Your task to perform on an android device: What is the news today? Image 0: 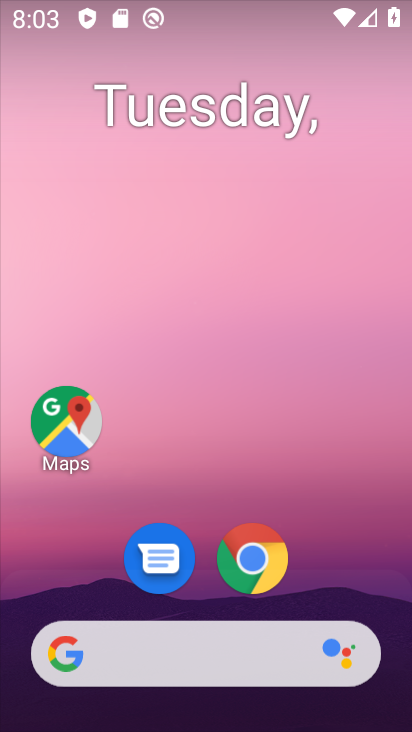
Step 0: drag from (207, 603) to (222, 118)
Your task to perform on an android device: What is the news today? Image 1: 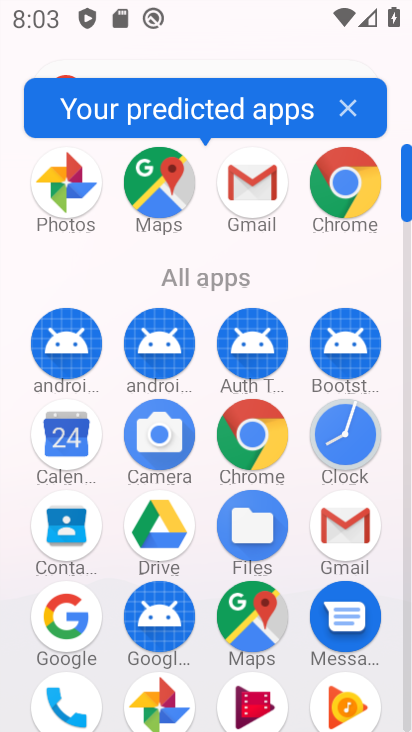
Step 1: click (60, 610)
Your task to perform on an android device: What is the news today? Image 2: 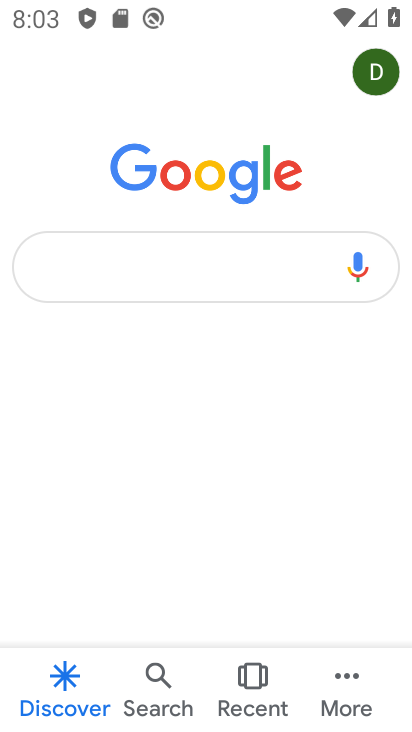
Step 2: click (235, 264)
Your task to perform on an android device: What is the news today? Image 3: 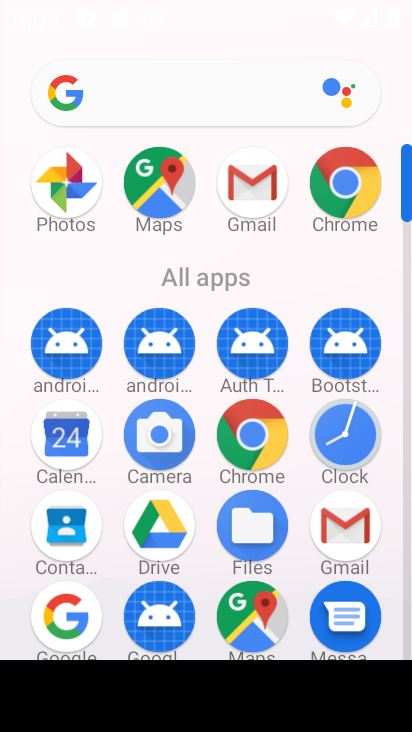
Step 3: click (141, 316)
Your task to perform on an android device: What is the news today? Image 4: 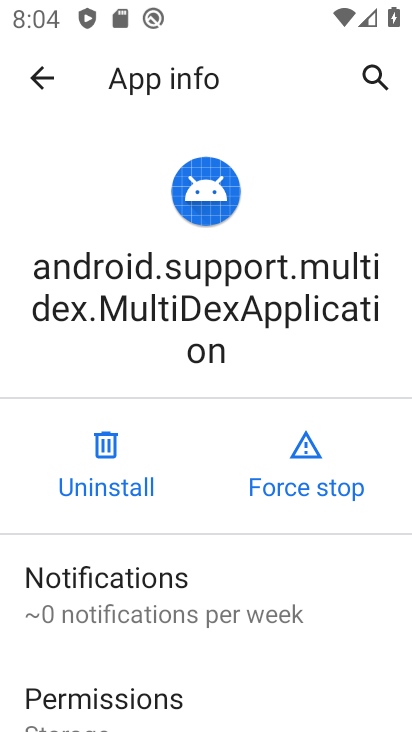
Step 4: click (41, 73)
Your task to perform on an android device: What is the news today? Image 5: 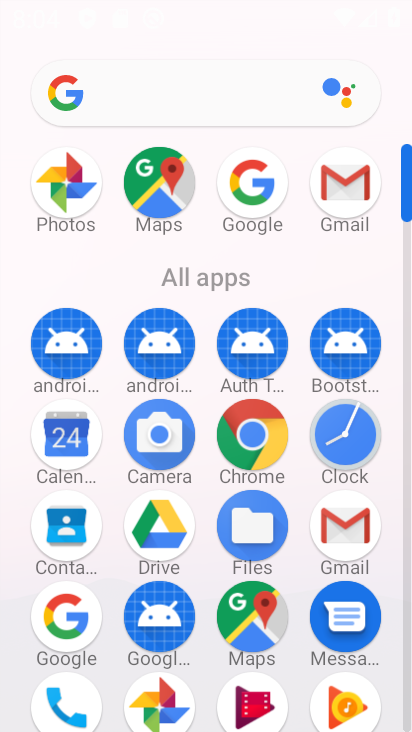
Step 5: click (237, 195)
Your task to perform on an android device: What is the news today? Image 6: 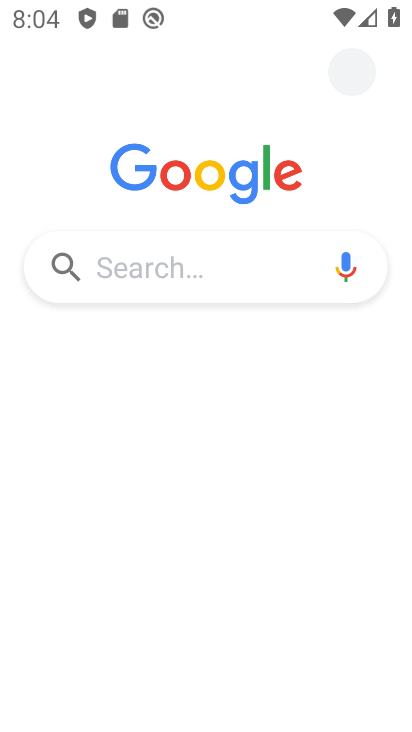
Step 6: click (159, 269)
Your task to perform on an android device: What is the news today? Image 7: 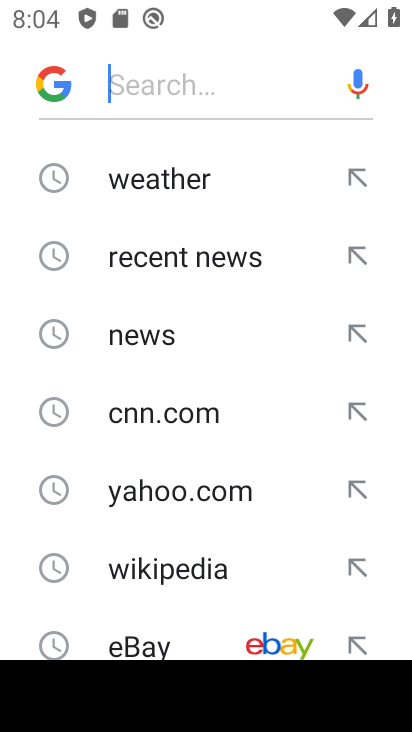
Step 7: click (179, 346)
Your task to perform on an android device: What is the news today? Image 8: 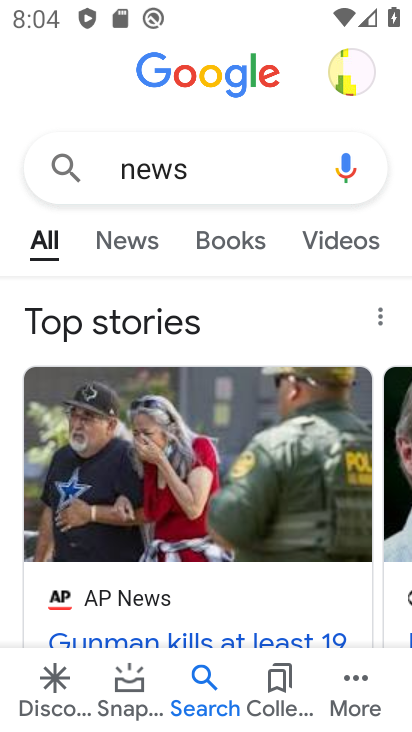
Step 8: click (115, 241)
Your task to perform on an android device: What is the news today? Image 9: 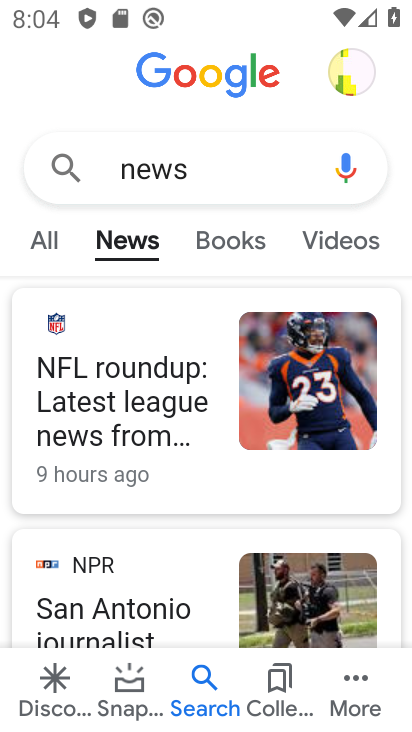
Step 9: drag from (182, 432) to (252, 246)
Your task to perform on an android device: What is the news today? Image 10: 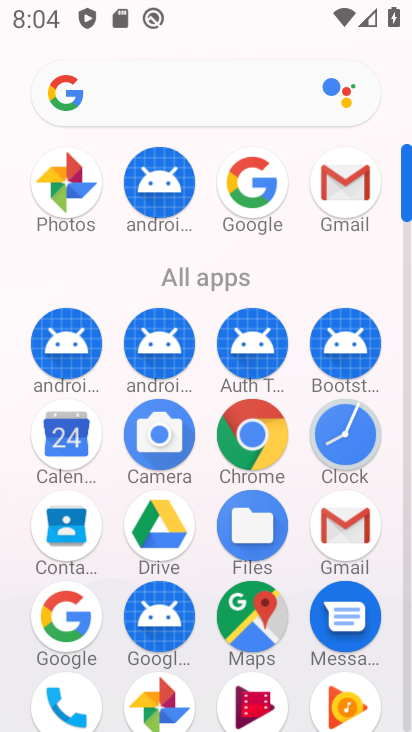
Step 10: click (241, 186)
Your task to perform on an android device: What is the news today? Image 11: 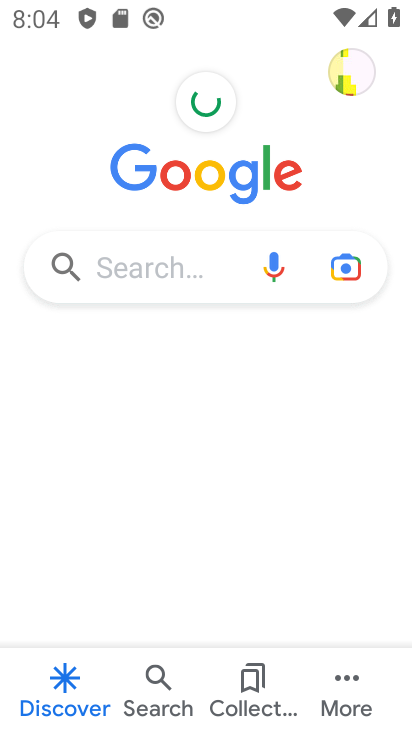
Step 11: click (163, 254)
Your task to perform on an android device: What is the news today? Image 12: 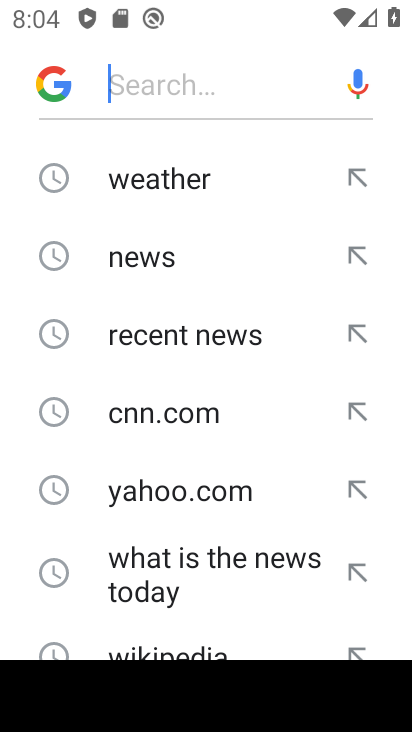
Step 12: click (152, 247)
Your task to perform on an android device: What is the news today? Image 13: 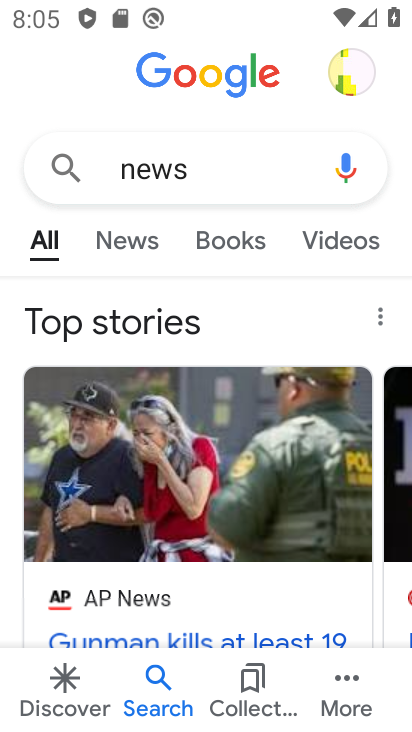
Step 13: click (129, 241)
Your task to perform on an android device: What is the news today? Image 14: 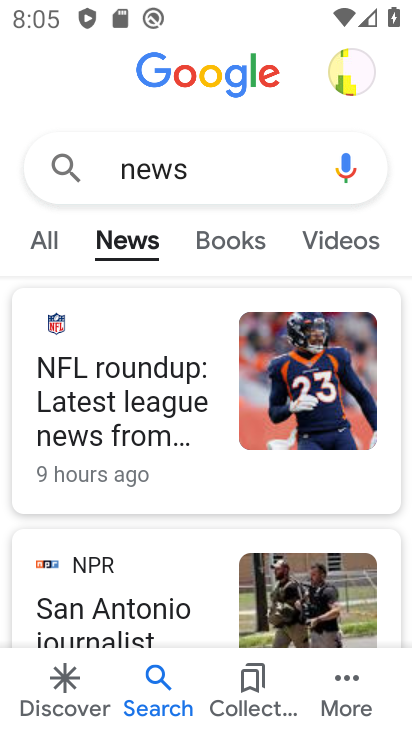
Step 14: task complete